Your task to perform on an android device: Open settings on Google Maps Image 0: 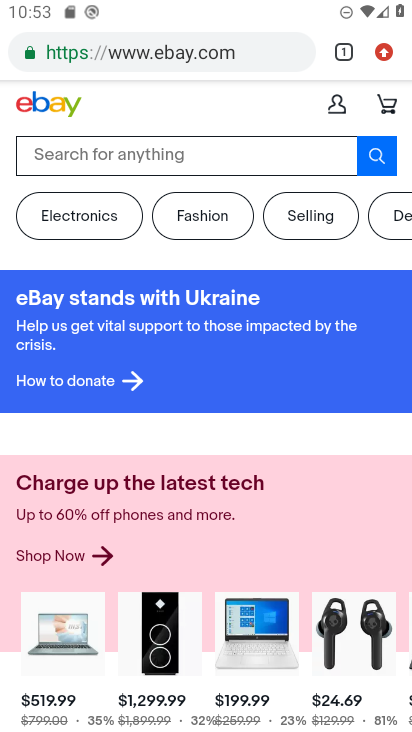
Step 0: press home button
Your task to perform on an android device: Open settings on Google Maps Image 1: 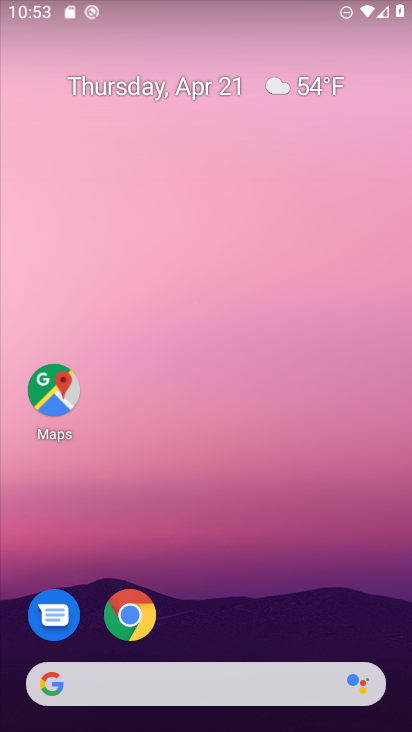
Step 1: drag from (237, 586) to (337, 138)
Your task to perform on an android device: Open settings on Google Maps Image 2: 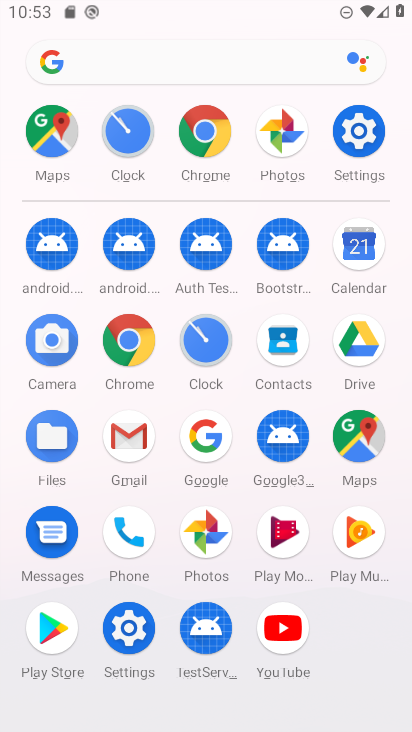
Step 2: click (348, 443)
Your task to perform on an android device: Open settings on Google Maps Image 3: 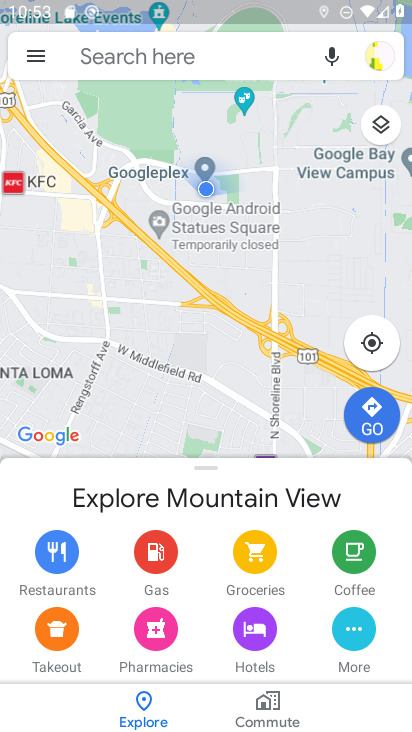
Step 3: click (23, 56)
Your task to perform on an android device: Open settings on Google Maps Image 4: 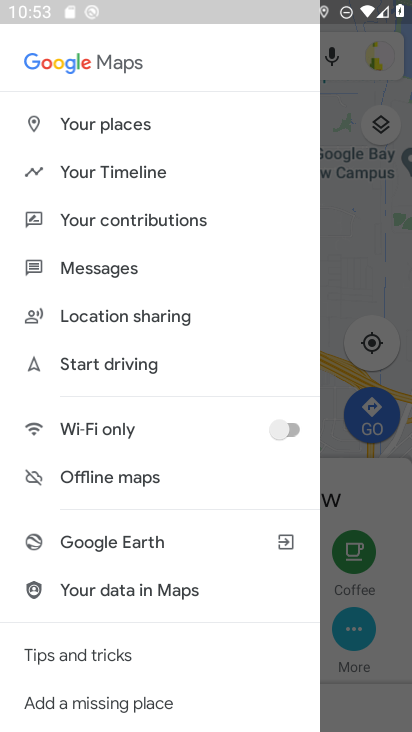
Step 4: drag from (148, 605) to (196, 475)
Your task to perform on an android device: Open settings on Google Maps Image 5: 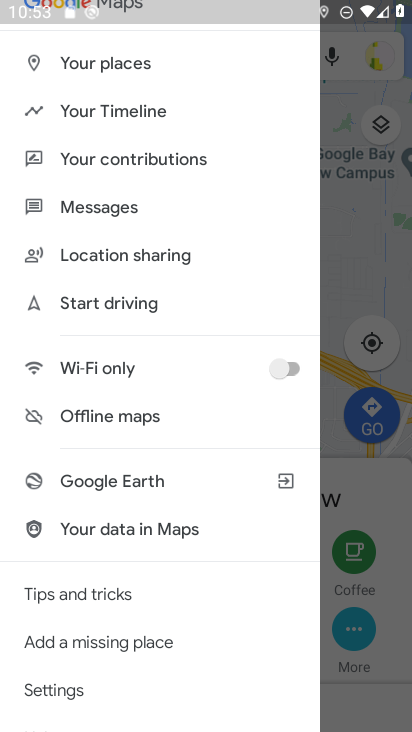
Step 5: click (144, 699)
Your task to perform on an android device: Open settings on Google Maps Image 6: 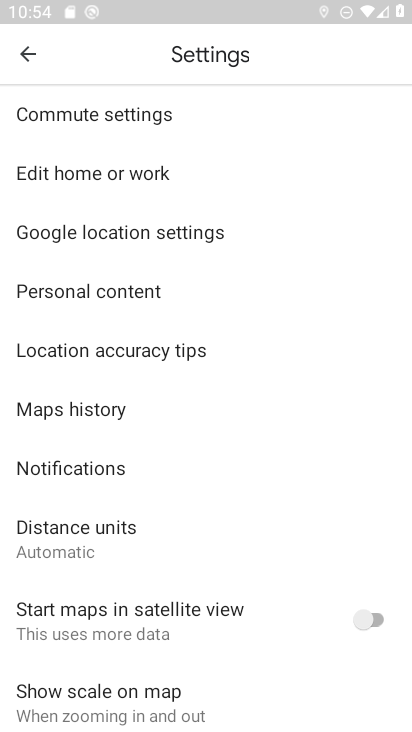
Step 6: task complete